Your task to perform on an android device: Search for flights from Seoul to Mexico city Image 0: 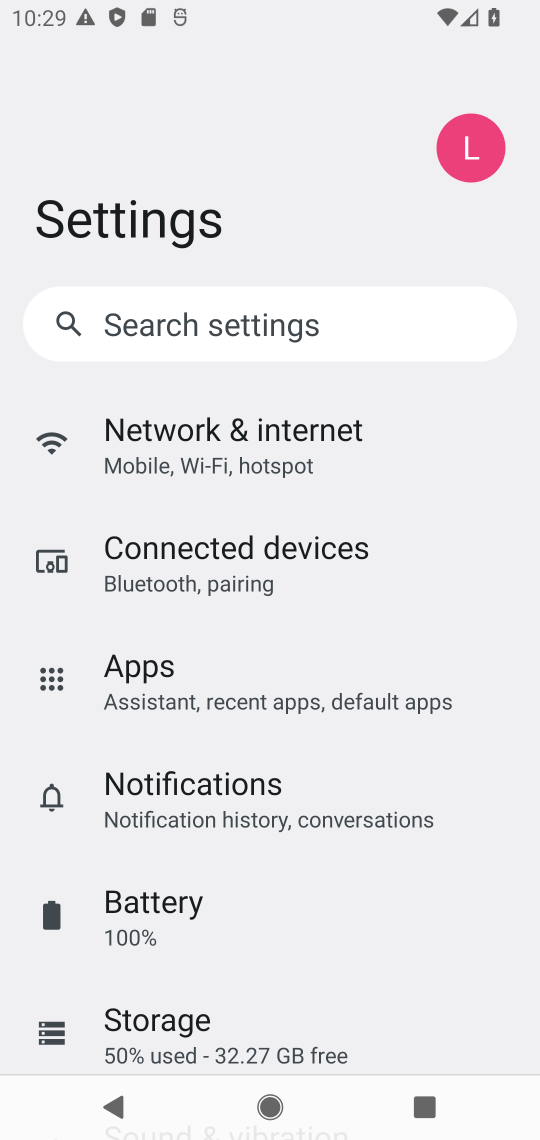
Step 0: press home button
Your task to perform on an android device: Search for flights from Seoul to Mexico city Image 1: 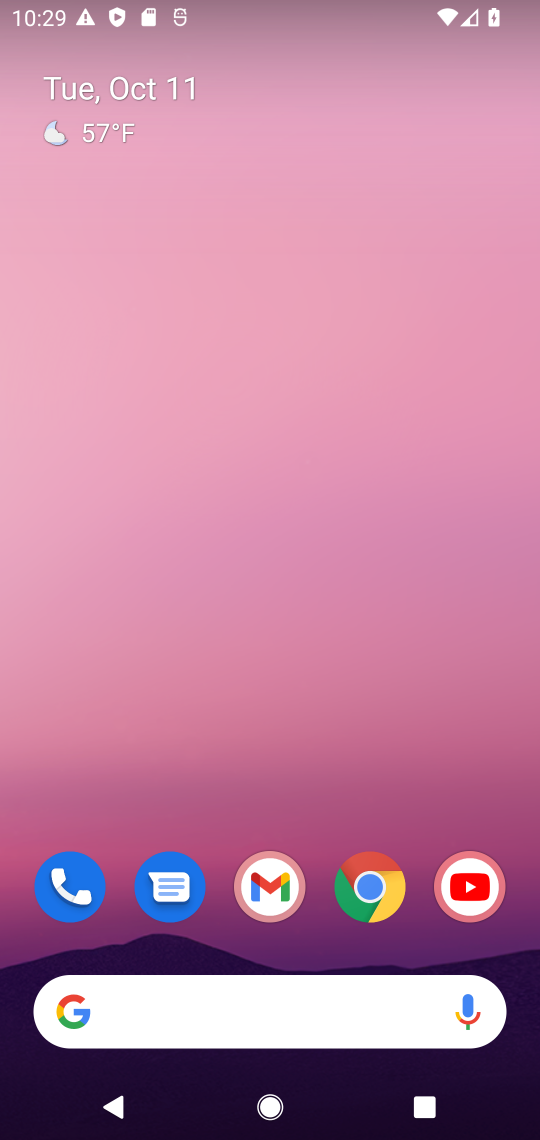
Step 1: click (248, 1003)
Your task to perform on an android device: Search for flights from Seoul to Mexico city Image 2: 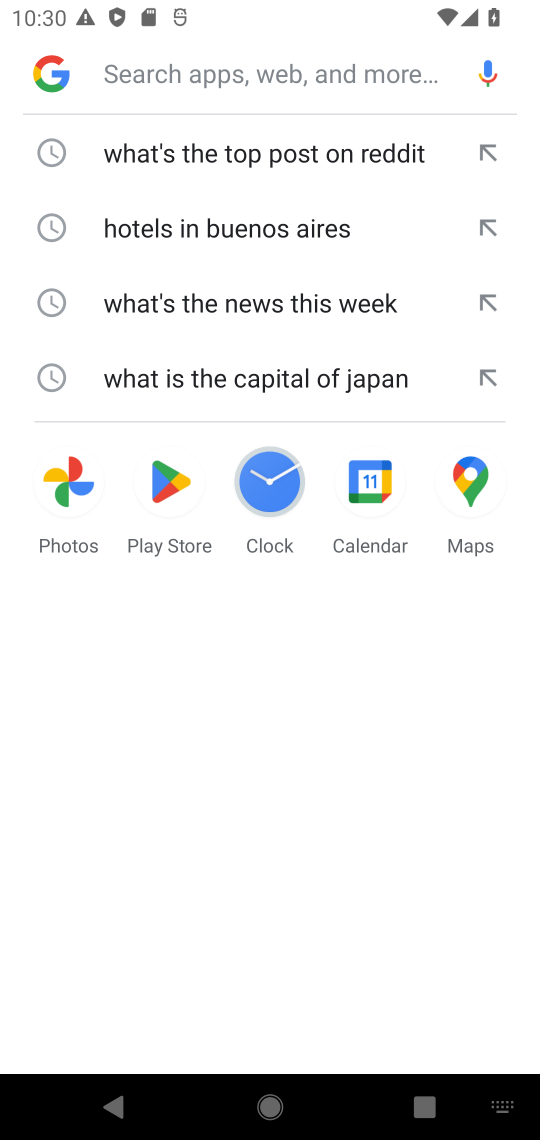
Step 2: type "flights from Seoul to Mexico city"
Your task to perform on an android device: Search for flights from Seoul to Mexico city Image 3: 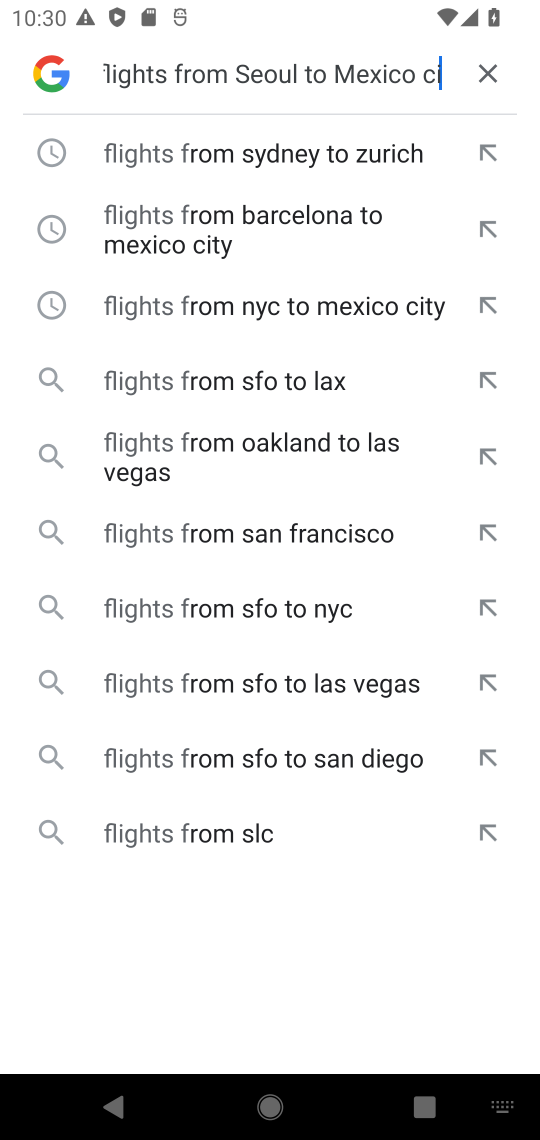
Step 3: press enter
Your task to perform on an android device: Search for flights from Seoul to Mexico city Image 4: 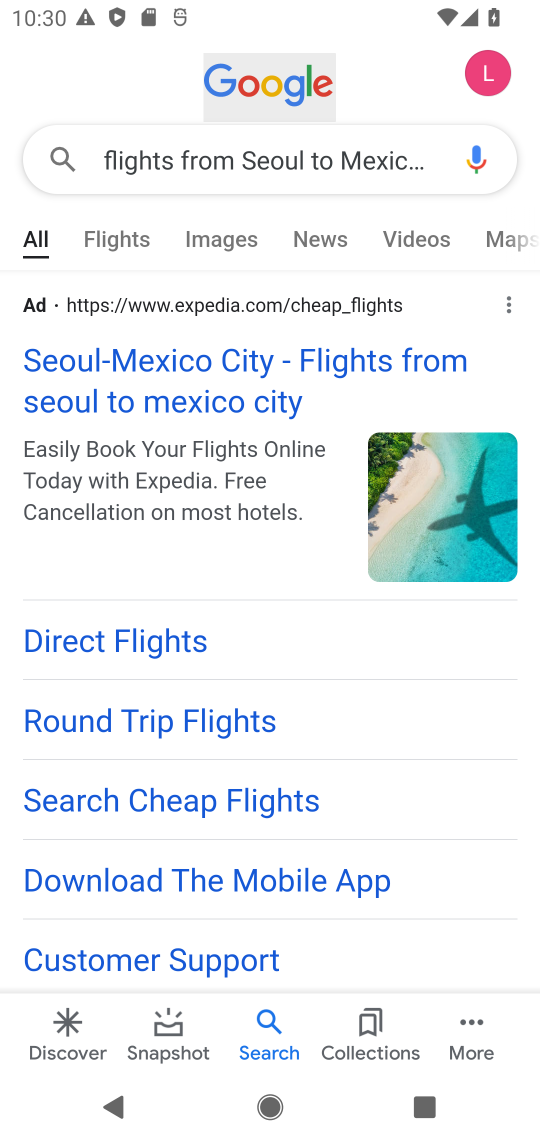
Step 4: drag from (334, 764) to (337, 570)
Your task to perform on an android device: Search for flights from Seoul to Mexico city Image 5: 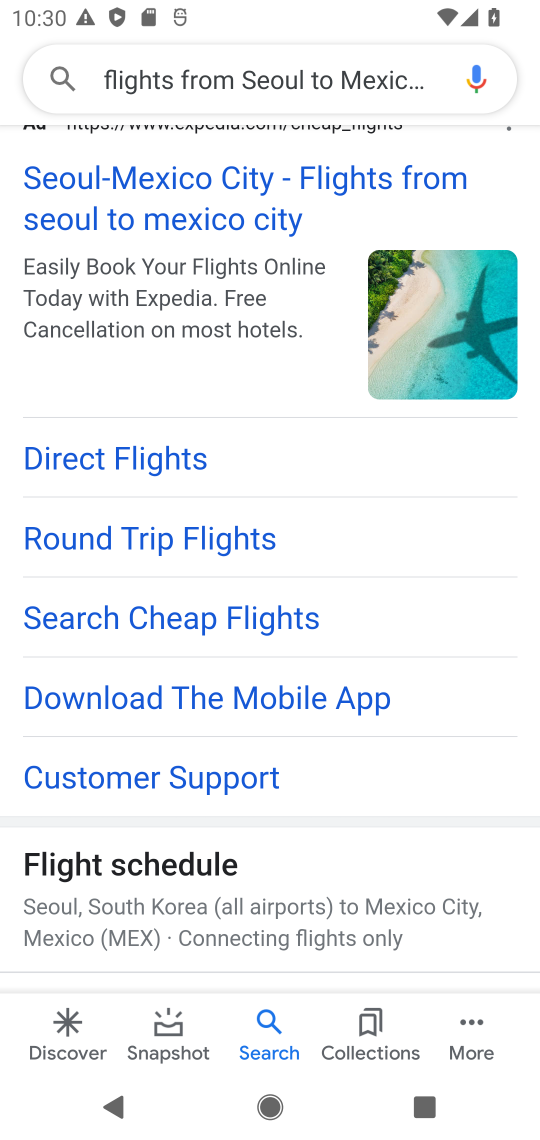
Step 5: drag from (381, 849) to (381, 524)
Your task to perform on an android device: Search for flights from Seoul to Mexico city Image 6: 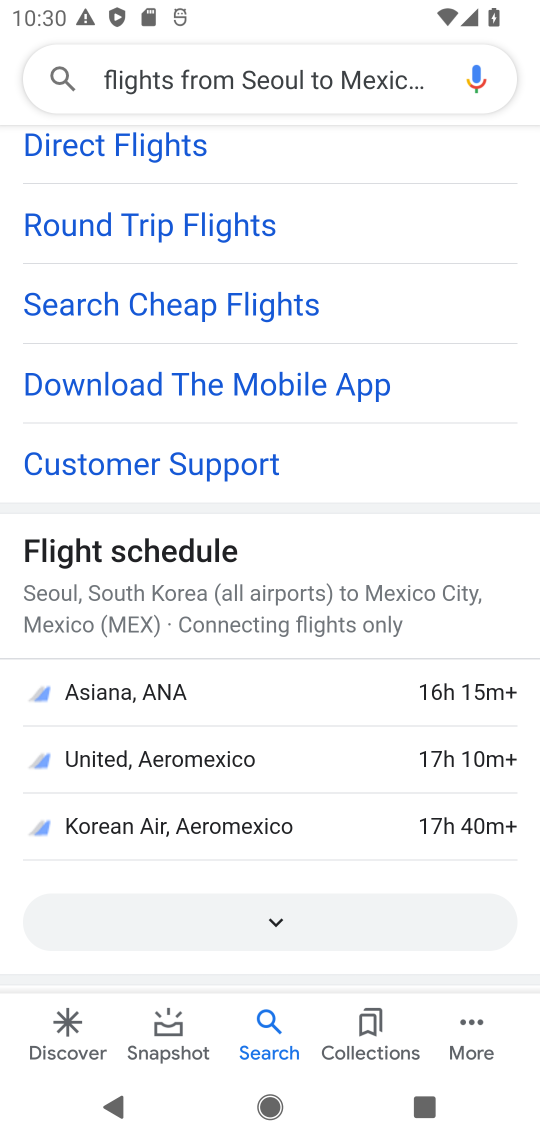
Step 6: drag from (350, 900) to (348, 541)
Your task to perform on an android device: Search for flights from Seoul to Mexico city Image 7: 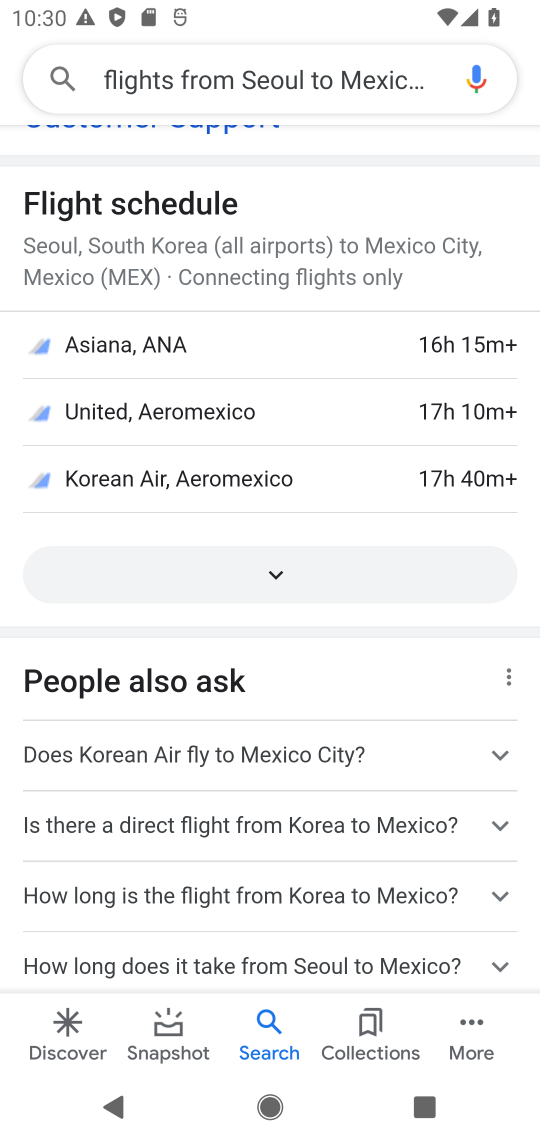
Step 7: click (270, 571)
Your task to perform on an android device: Search for flights from Seoul to Mexico city Image 8: 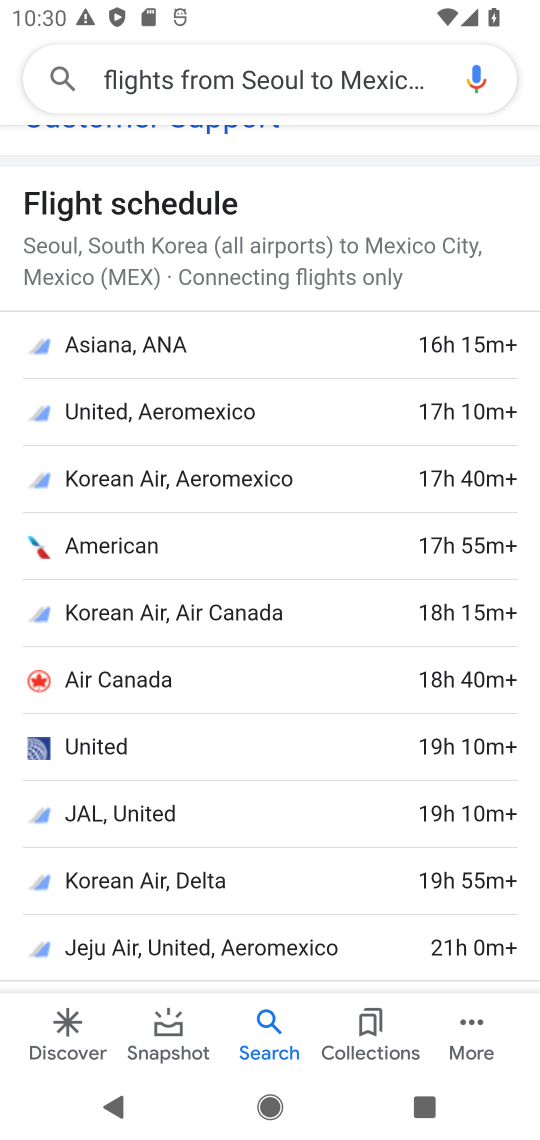
Step 8: task complete